Your task to perform on an android device: change notifications settings Image 0: 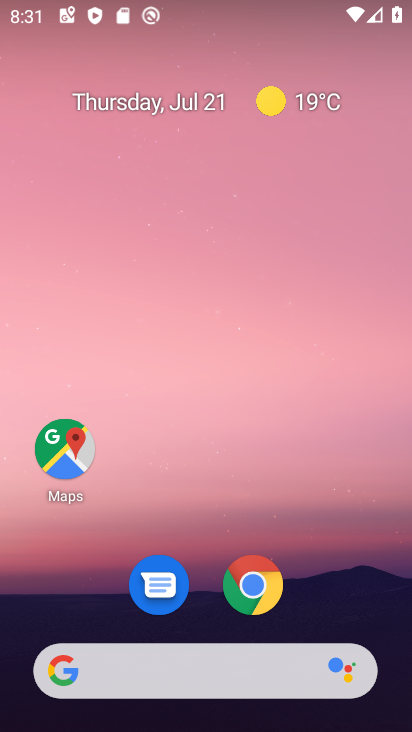
Step 0: drag from (331, 585) to (335, 30)
Your task to perform on an android device: change notifications settings Image 1: 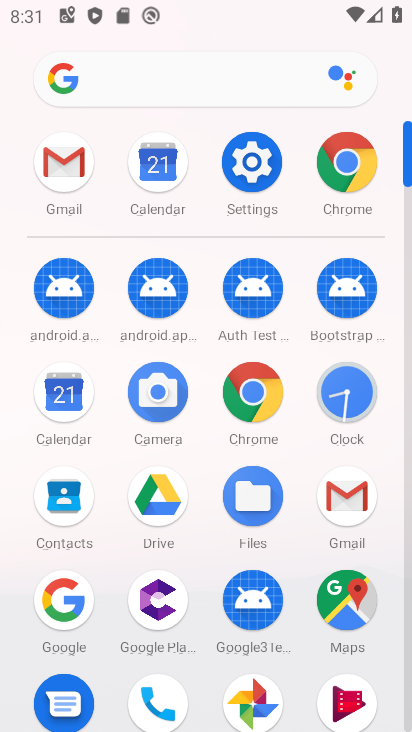
Step 1: click (266, 168)
Your task to perform on an android device: change notifications settings Image 2: 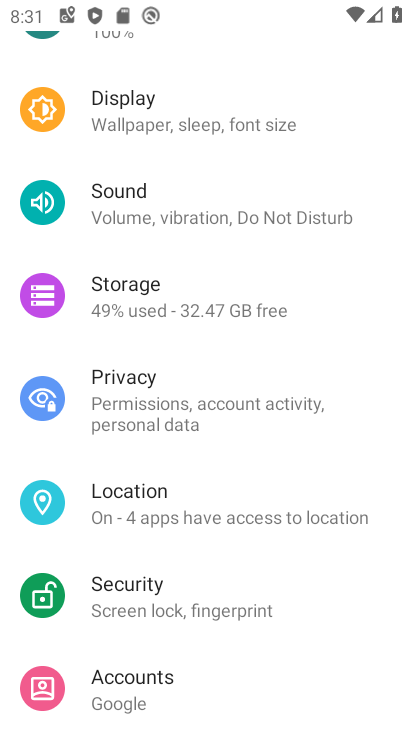
Step 2: drag from (243, 190) to (266, 607)
Your task to perform on an android device: change notifications settings Image 3: 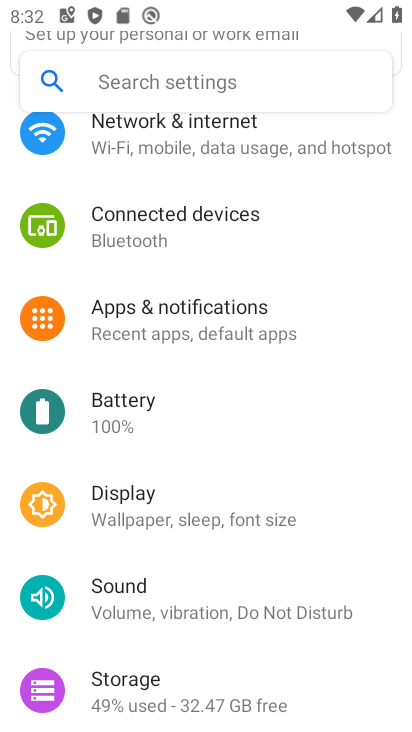
Step 3: click (249, 320)
Your task to perform on an android device: change notifications settings Image 4: 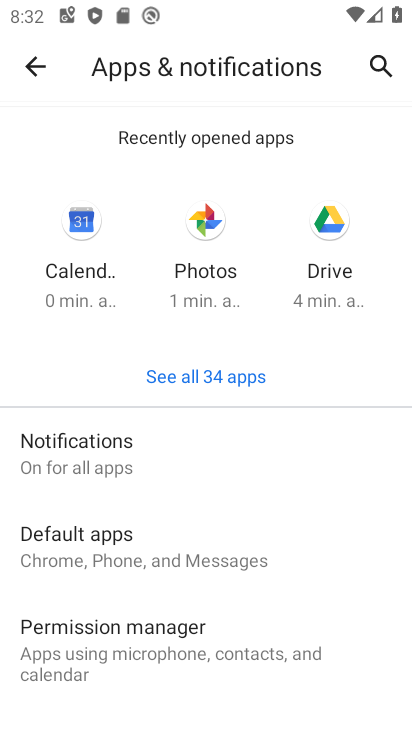
Step 4: click (116, 452)
Your task to perform on an android device: change notifications settings Image 5: 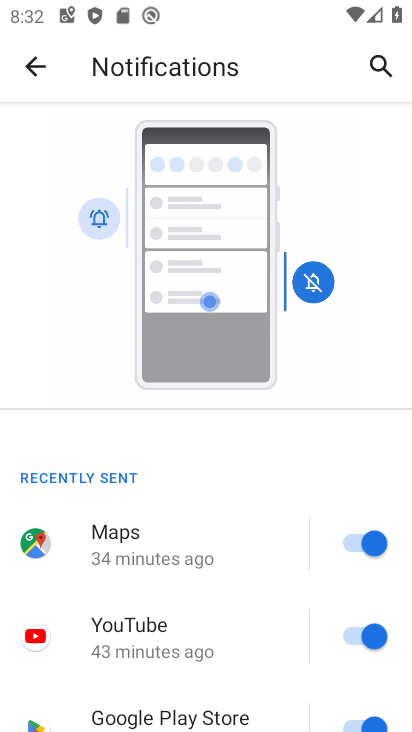
Step 5: drag from (213, 519) to (248, 157)
Your task to perform on an android device: change notifications settings Image 6: 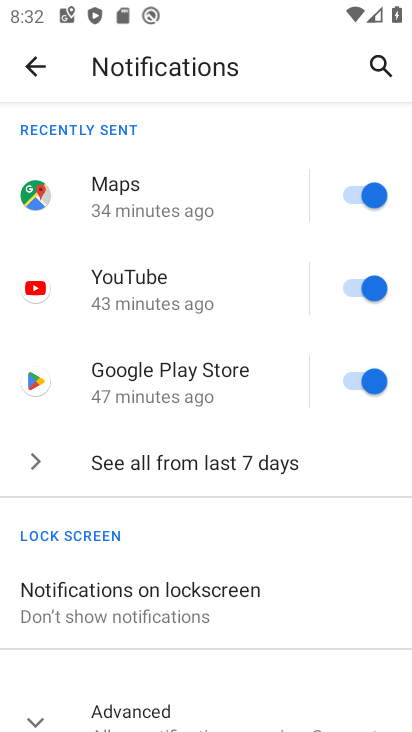
Step 6: click (234, 462)
Your task to perform on an android device: change notifications settings Image 7: 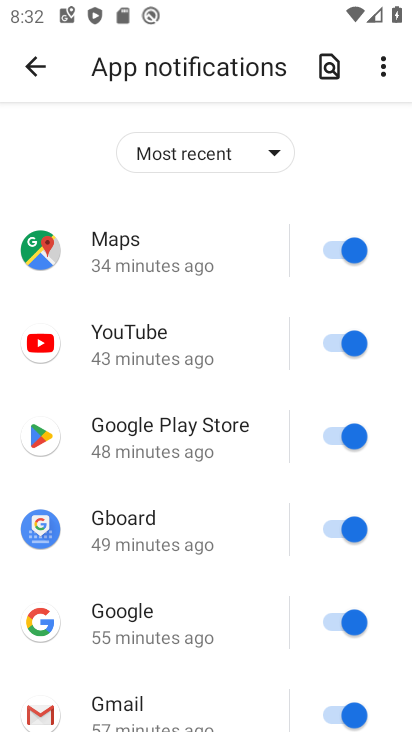
Step 7: click (341, 249)
Your task to perform on an android device: change notifications settings Image 8: 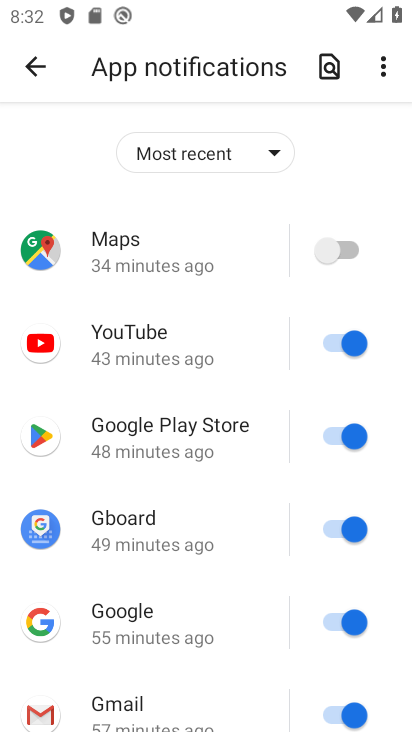
Step 8: click (344, 348)
Your task to perform on an android device: change notifications settings Image 9: 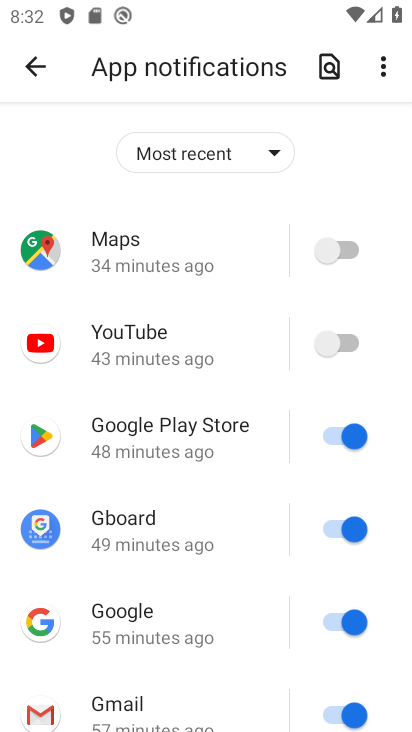
Step 9: click (342, 429)
Your task to perform on an android device: change notifications settings Image 10: 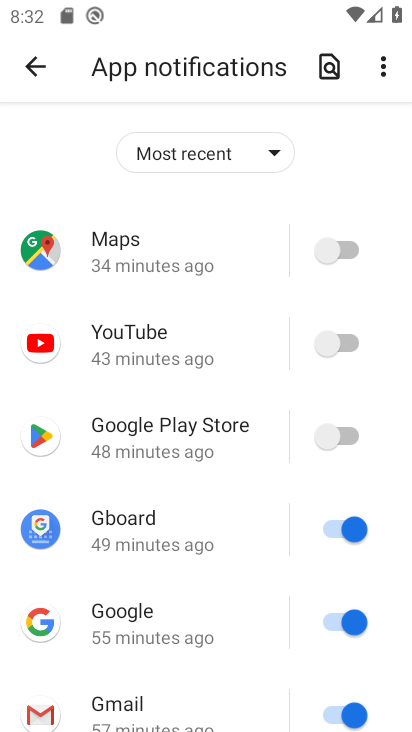
Step 10: click (344, 532)
Your task to perform on an android device: change notifications settings Image 11: 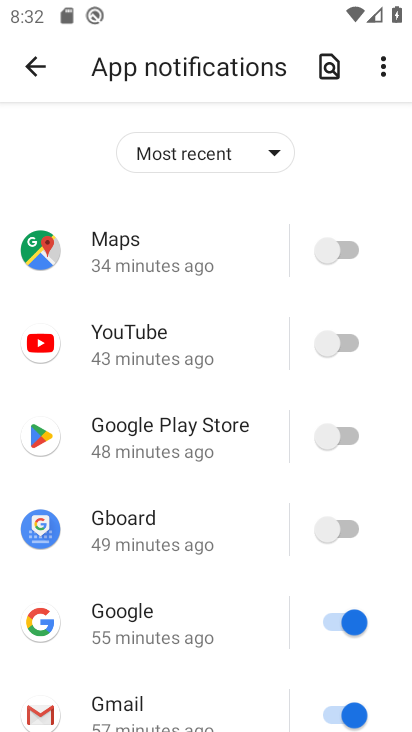
Step 11: click (344, 625)
Your task to perform on an android device: change notifications settings Image 12: 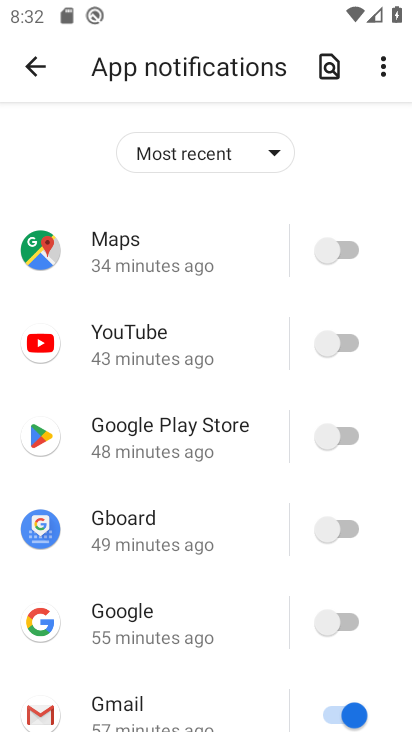
Step 12: drag from (230, 651) to (242, 95)
Your task to perform on an android device: change notifications settings Image 13: 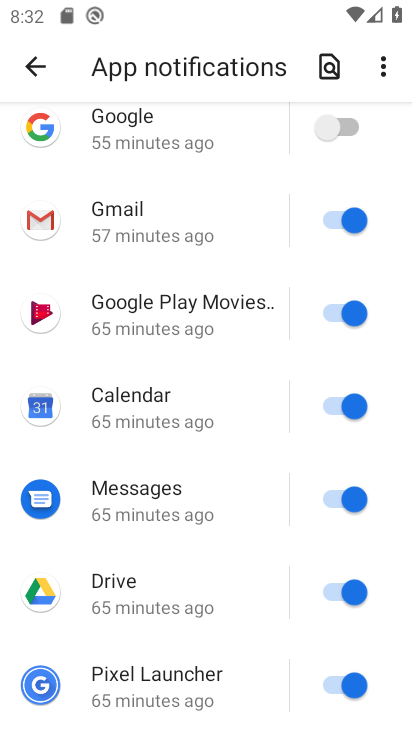
Step 13: click (335, 213)
Your task to perform on an android device: change notifications settings Image 14: 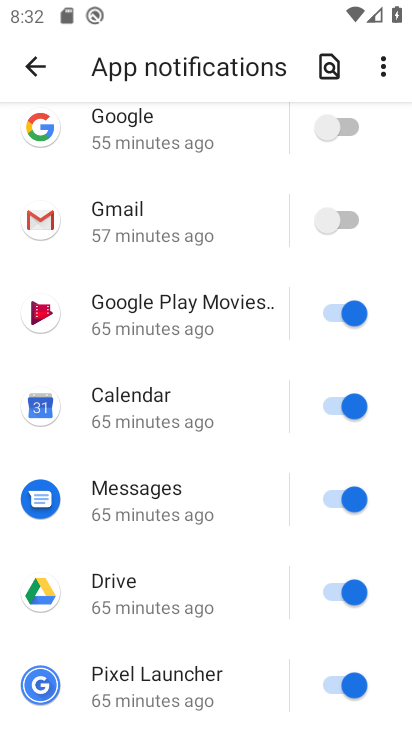
Step 14: click (342, 312)
Your task to perform on an android device: change notifications settings Image 15: 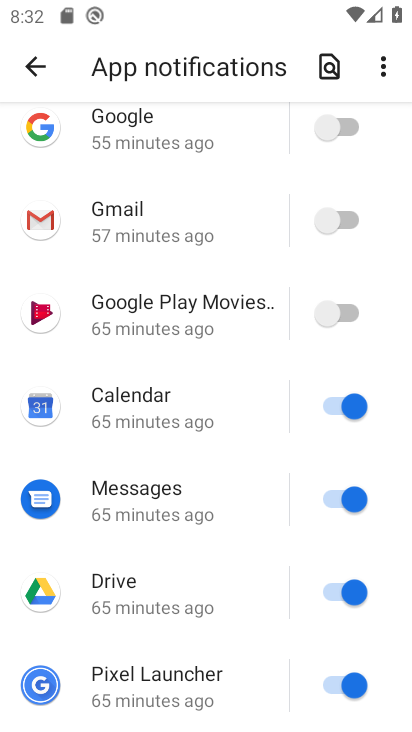
Step 15: click (350, 407)
Your task to perform on an android device: change notifications settings Image 16: 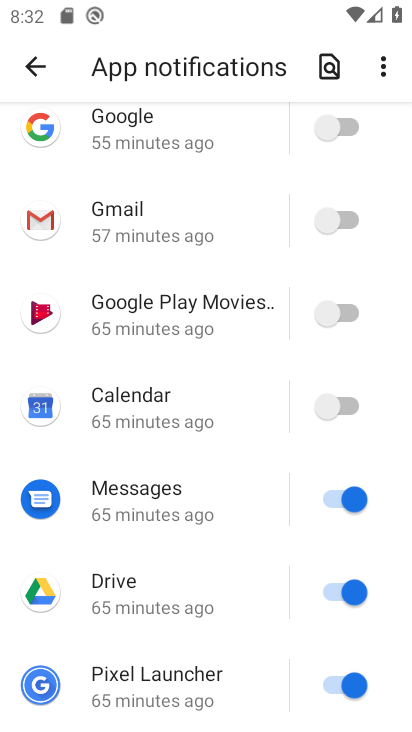
Step 16: click (342, 499)
Your task to perform on an android device: change notifications settings Image 17: 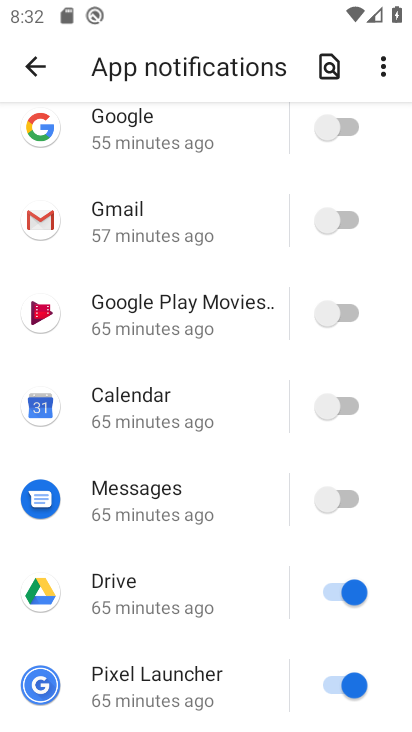
Step 17: click (342, 584)
Your task to perform on an android device: change notifications settings Image 18: 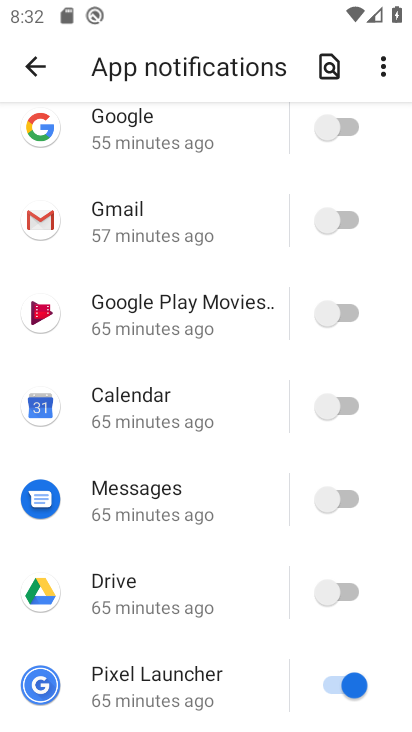
Step 18: click (347, 687)
Your task to perform on an android device: change notifications settings Image 19: 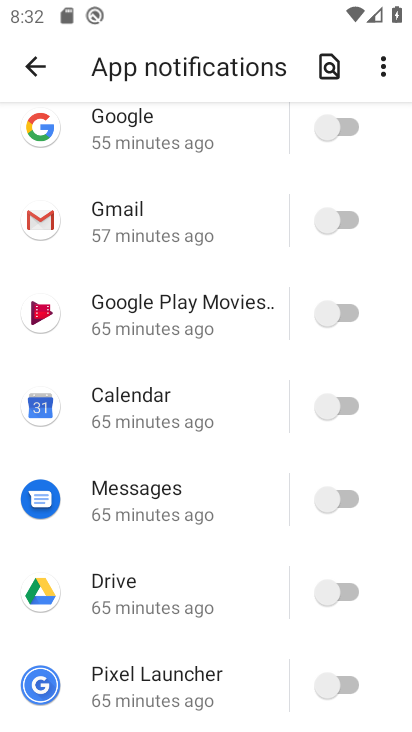
Step 19: task complete